Your task to perform on an android device: Open Google Chrome and open the bookmarks view Image 0: 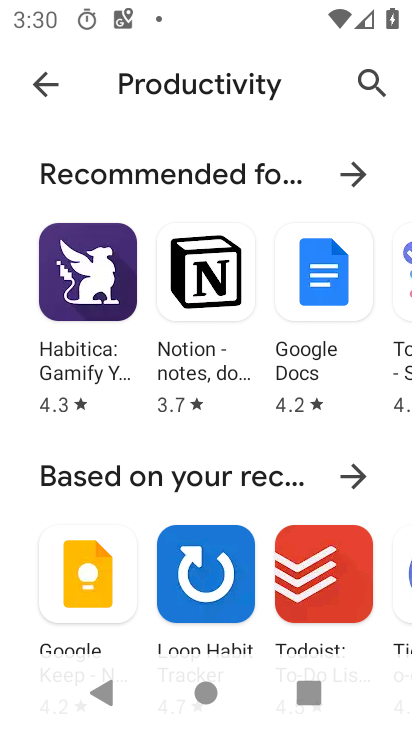
Step 0: press home button
Your task to perform on an android device: Open Google Chrome and open the bookmarks view Image 1: 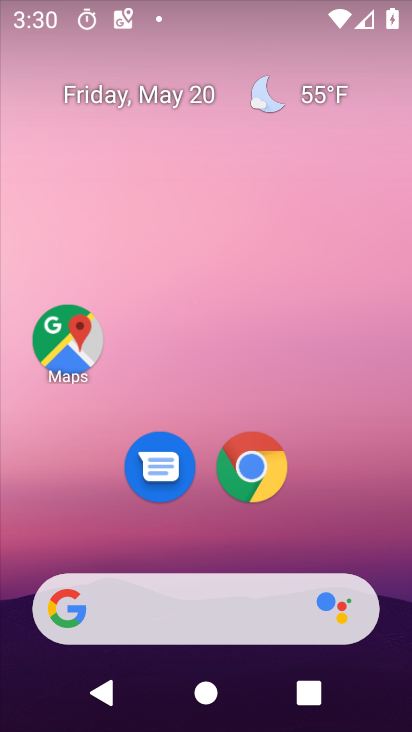
Step 1: click (239, 473)
Your task to perform on an android device: Open Google Chrome and open the bookmarks view Image 2: 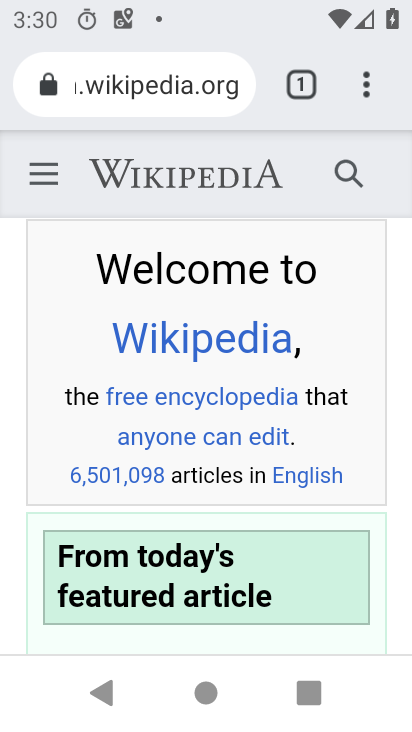
Step 2: click (356, 86)
Your task to perform on an android device: Open Google Chrome and open the bookmarks view Image 3: 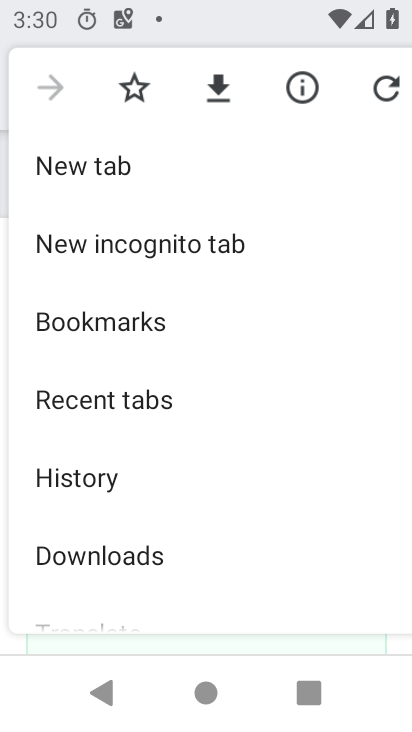
Step 3: drag from (183, 572) to (181, 283)
Your task to perform on an android device: Open Google Chrome and open the bookmarks view Image 4: 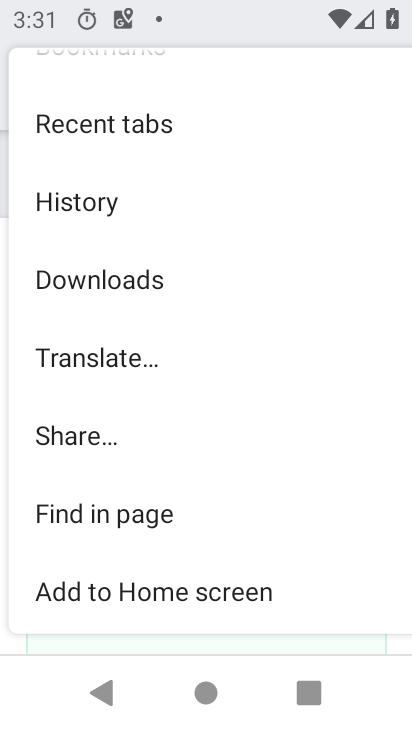
Step 4: drag from (112, 208) to (130, 531)
Your task to perform on an android device: Open Google Chrome and open the bookmarks view Image 5: 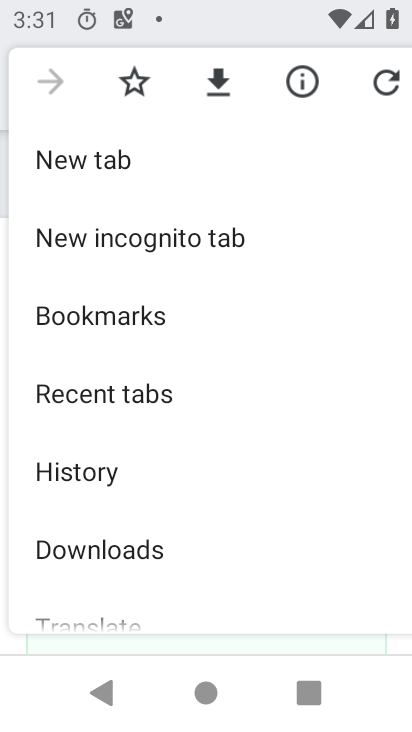
Step 5: click (108, 321)
Your task to perform on an android device: Open Google Chrome and open the bookmarks view Image 6: 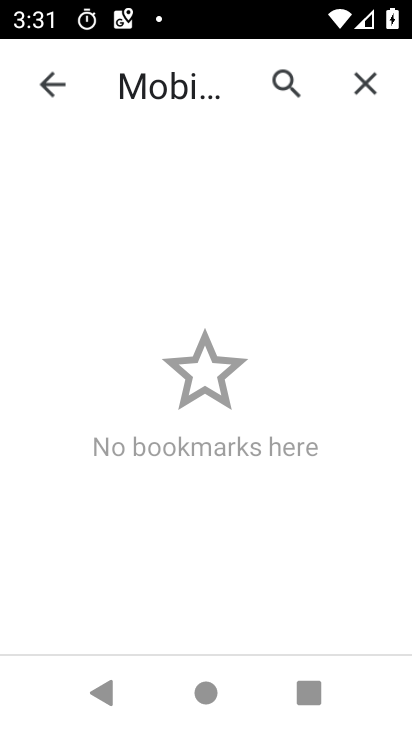
Step 6: task complete